Your task to perform on an android device: toggle javascript in the chrome app Image 0: 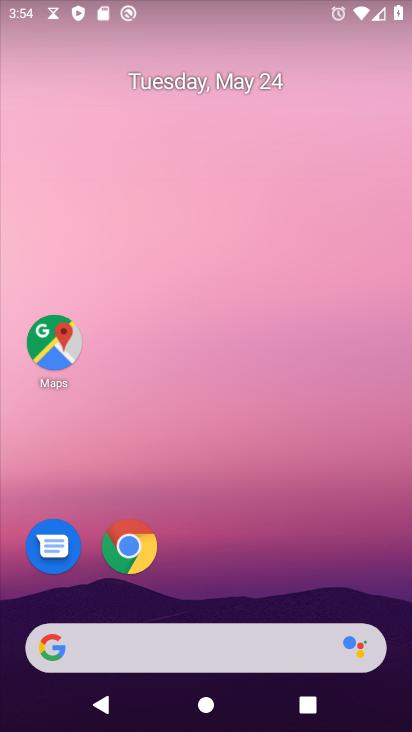
Step 0: drag from (272, 682) to (124, 107)
Your task to perform on an android device: toggle javascript in the chrome app Image 1: 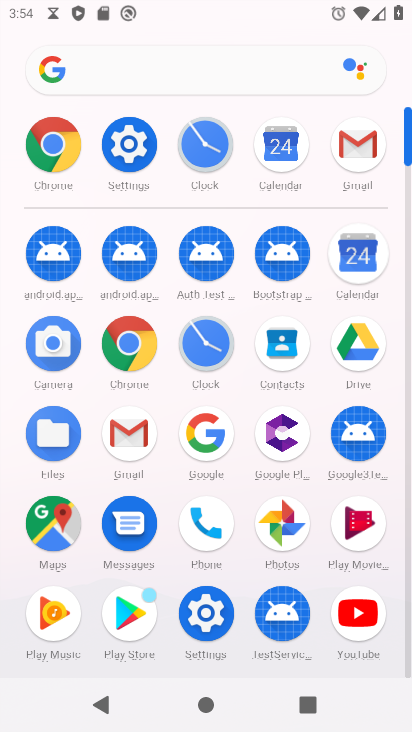
Step 1: click (49, 151)
Your task to perform on an android device: toggle javascript in the chrome app Image 2: 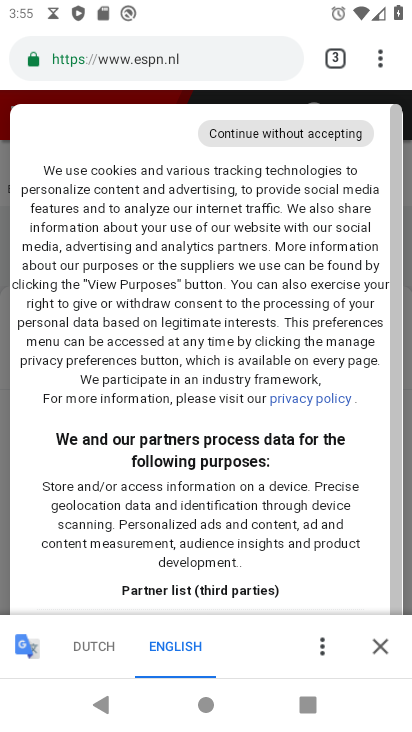
Step 2: click (376, 65)
Your task to perform on an android device: toggle javascript in the chrome app Image 3: 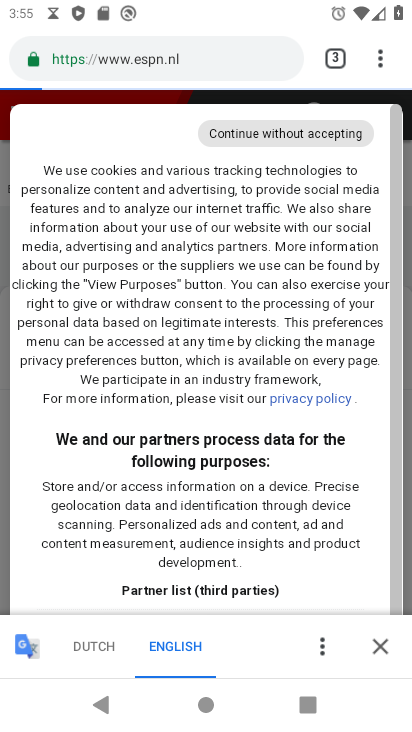
Step 3: drag from (375, 66) to (177, 564)
Your task to perform on an android device: toggle javascript in the chrome app Image 4: 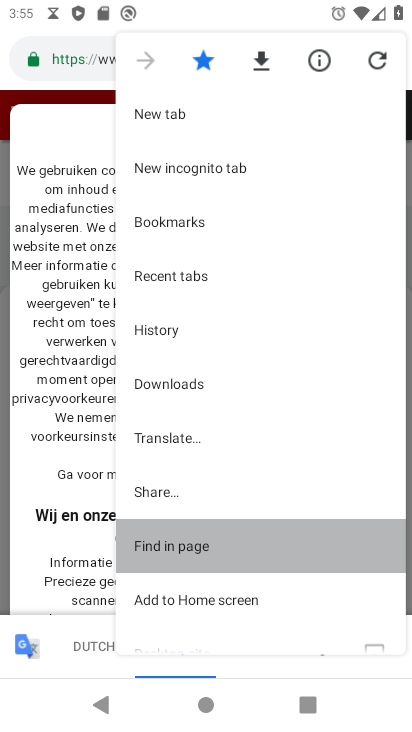
Step 4: click (147, 504)
Your task to perform on an android device: toggle javascript in the chrome app Image 5: 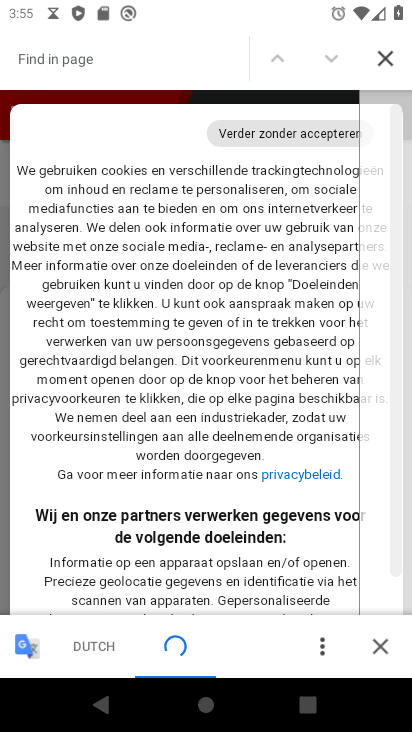
Step 5: drag from (182, 475) to (200, 136)
Your task to perform on an android device: toggle javascript in the chrome app Image 6: 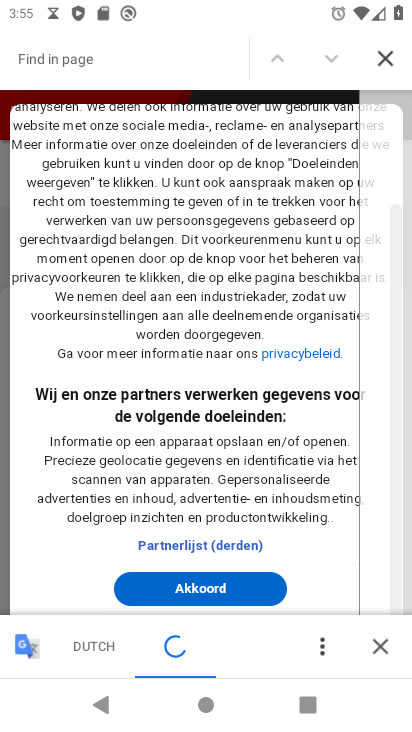
Step 6: click (379, 64)
Your task to perform on an android device: toggle javascript in the chrome app Image 7: 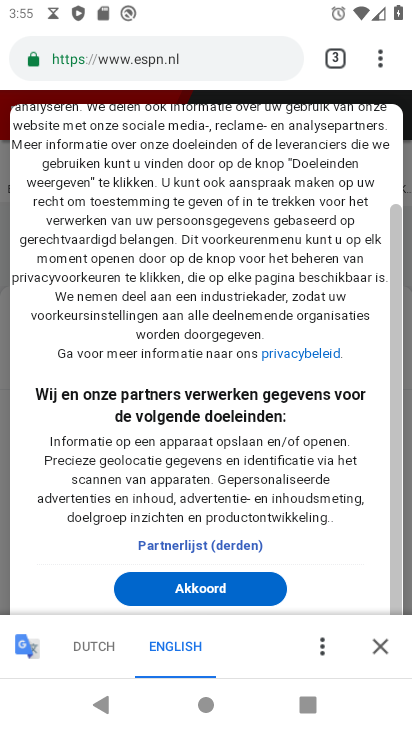
Step 7: click (372, 60)
Your task to perform on an android device: toggle javascript in the chrome app Image 8: 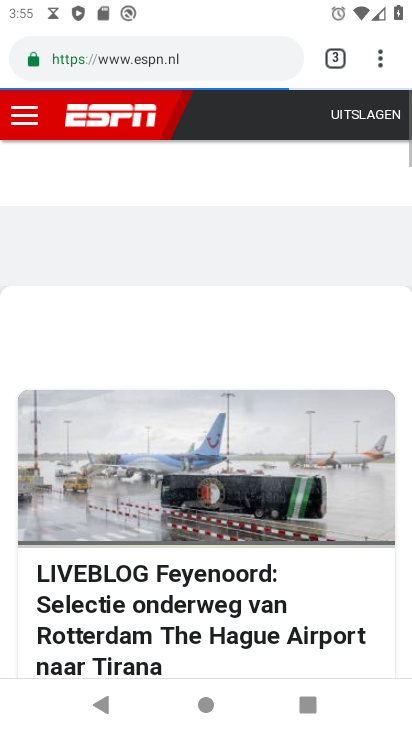
Step 8: drag from (376, 65) to (163, 578)
Your task to perform on an android device: toggle javascript in the chrome app Image 9: 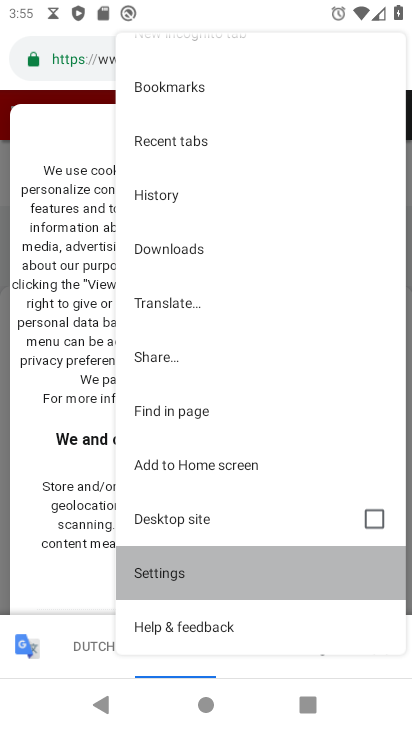
Step 9: click (166, 575)
Your task to perform on an android device: toggle javascript in the chrome app Image 10: 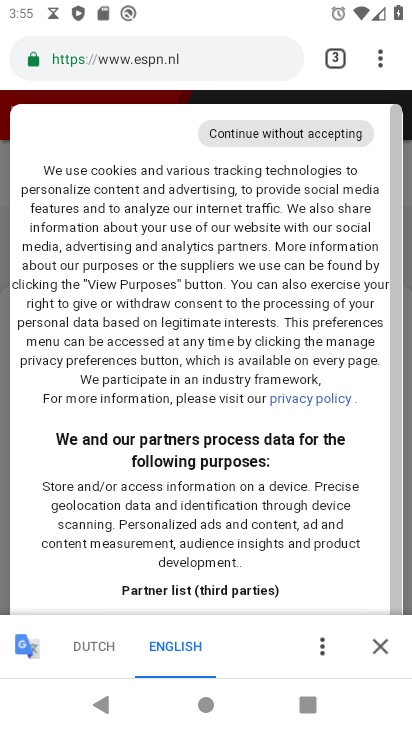
Step 10: click (177, 566)
Your task to perform on an android device: toggle javascript in the chrome app Image 11: 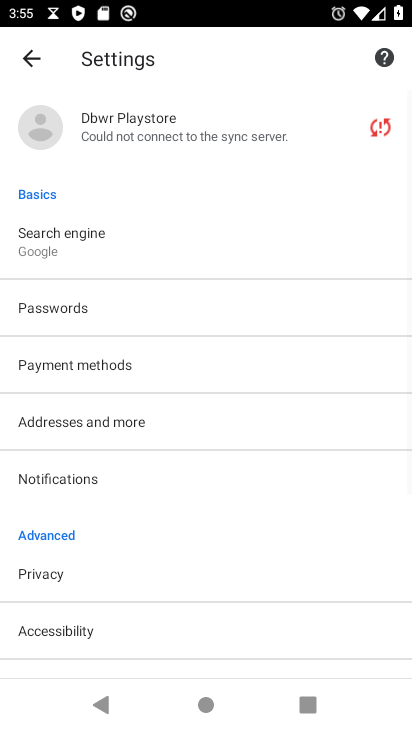
Step 11: drag from (178, 351) to (189, 127)
Your task to perform on an android device: toggle javascript in the chrome app Image 12: 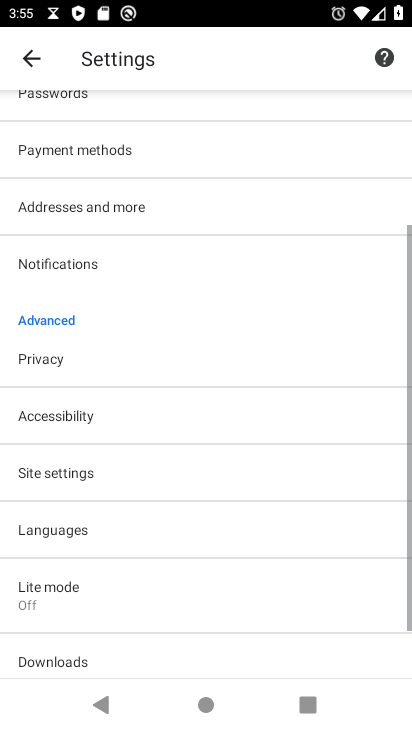
Step 12: drag from (168, 442) to (130, 52)
Your task to perform on an android device: toggle javascript in the chrome app Image 13: 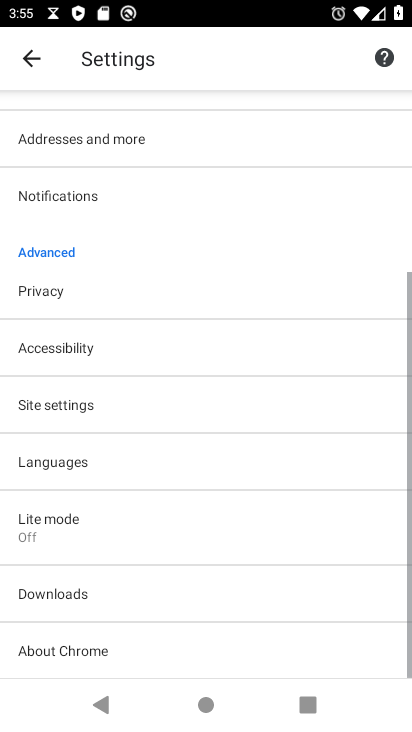
Step 13: drag from (124, 452) to (102, 104)
Your task to perform on an android device: toggle javascript in the chrome app Image 14: 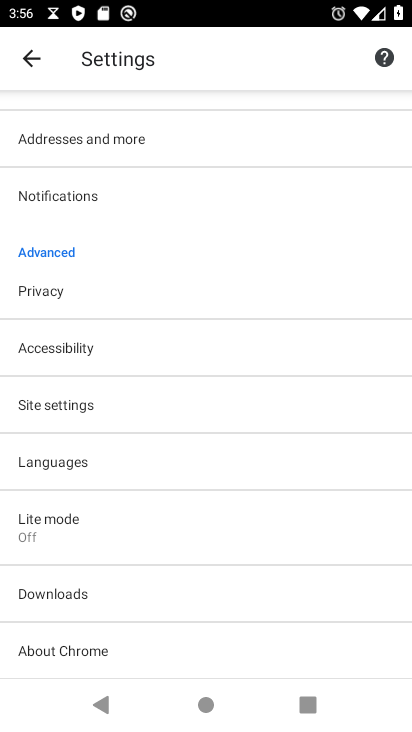
Step 14: click (9, 249)
Your task to perform on an android device: toggle javascript in the chrome app Image 15: 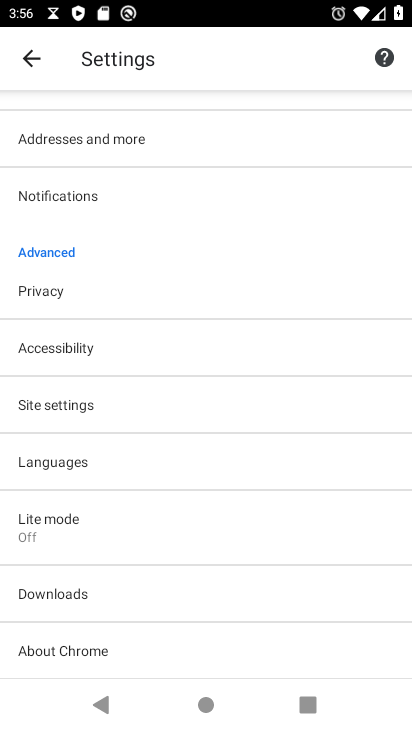
Step 15: click (76, 231)
Your task to perform on an android device: toggle javascript in the chrome app Image 16: 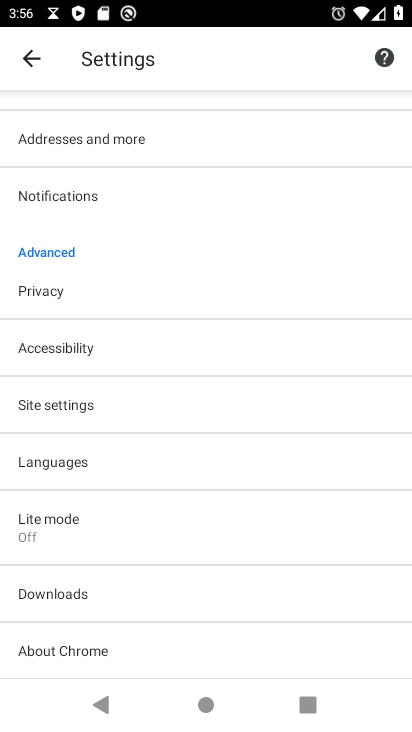
Step 16: click (78, 202)
Your task to perform on an android device: toggle javascript in the chrome app Image 17: 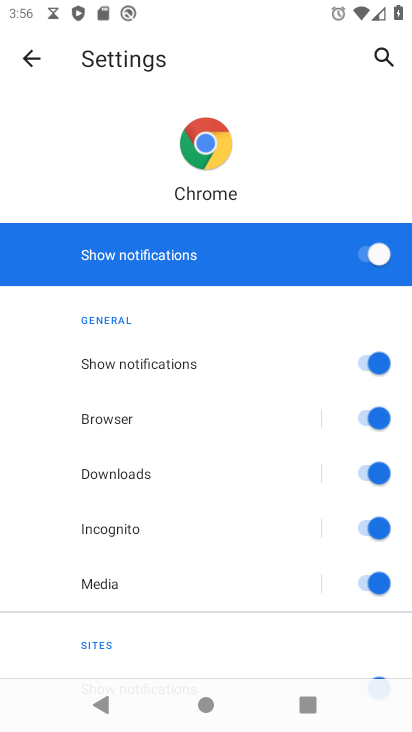
Step 17: click (33, 61)
Your task to perform on an android device: toggle javascript in the chrome app Image 18: 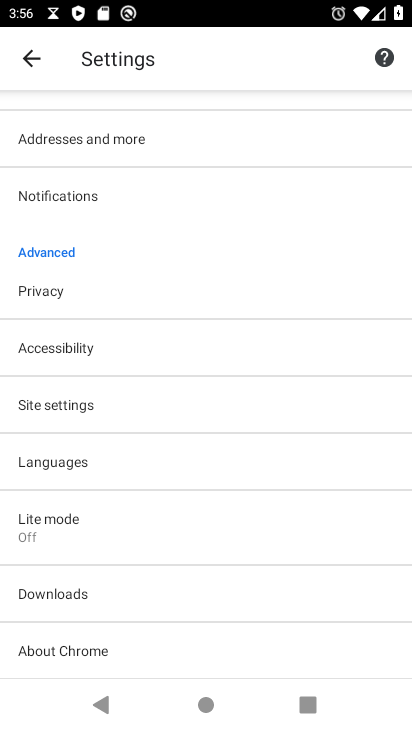
Step 18: click (42, 393)
Your task to perform on an android device: toggle javascript in the chrome app Image 19: 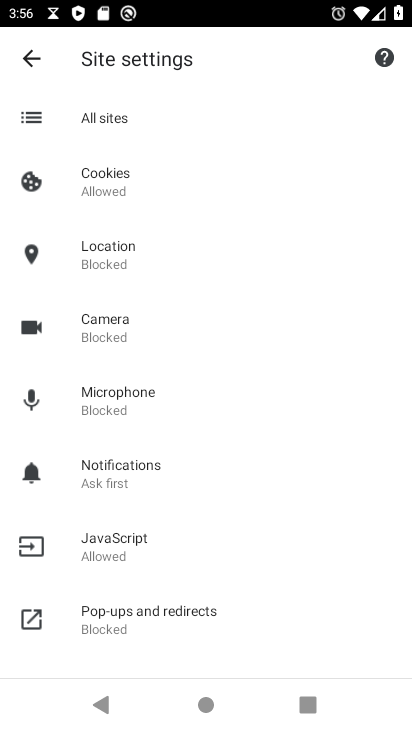
Step 19: click (102, 546)
Your task to perform on an android device: toggle javascript in the chrome app Image 20: 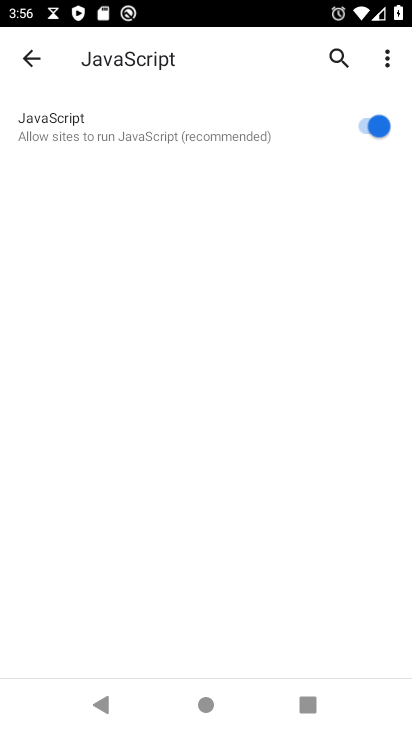
Step 20: click (378, 132)
Your task to perform on an android device: toggle javascript in the chrome app Image 21: 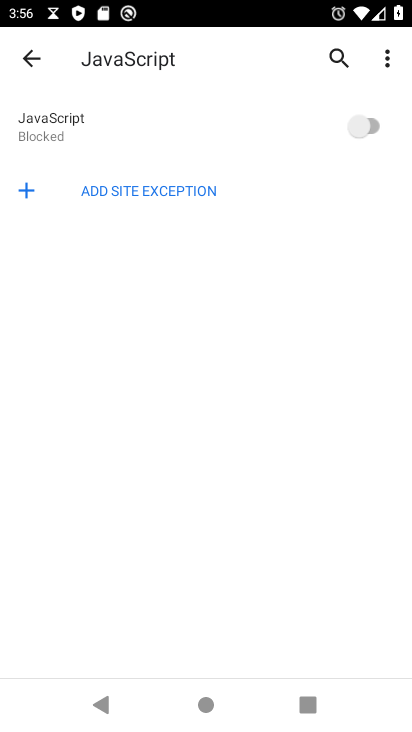
Step 21: task complete